Your task to perform on an android device: Open Google Maps Image 0: 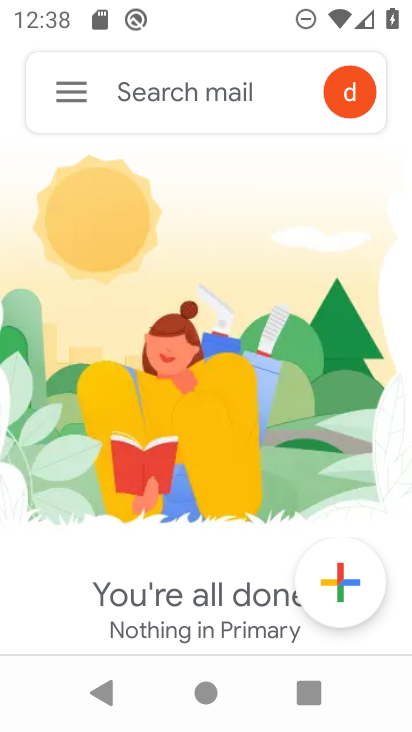
Step 0: press home button
Your task to perform on an android device: Open Google Maps Image 1: 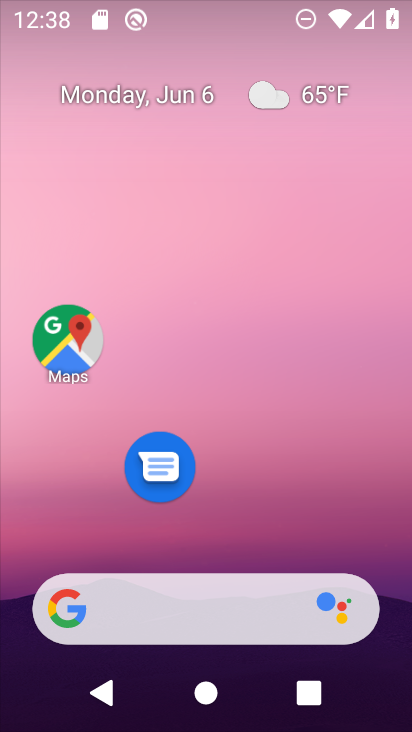
Step 1: drag from (301, 540) to (283, 199)
Your task to perform on an android device: Open Google Maps Image 2: 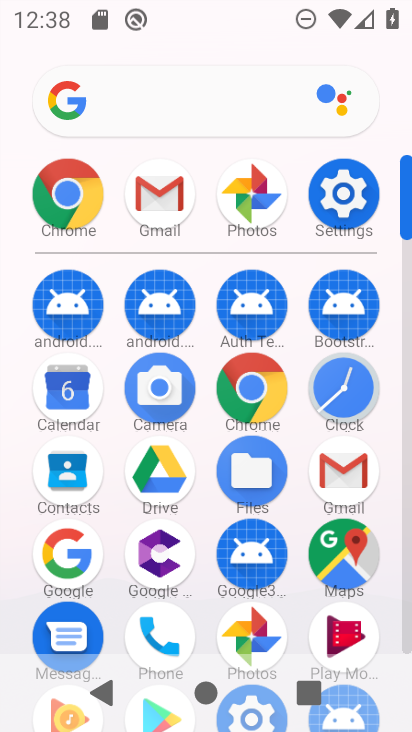
Step 2: click (67, 528)
Your task to perform on an android device: Open Google Maps Image 3: 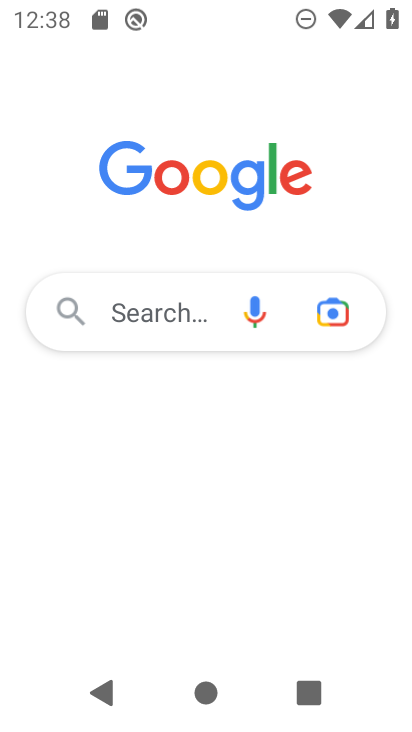
Step 3: press back button
Your task to perform on an android device: Open Google Maps Image 4: 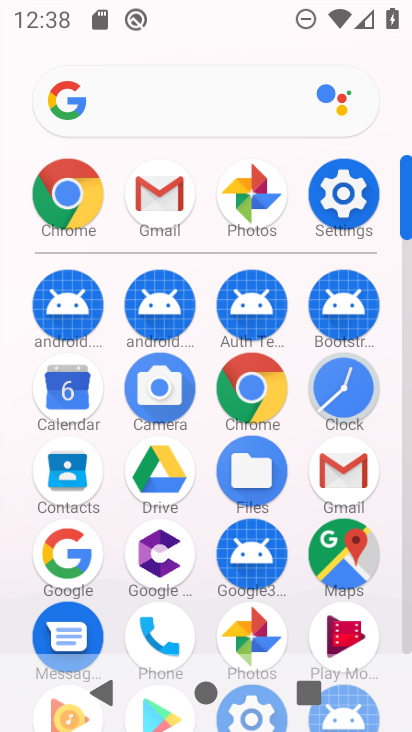
Step 4: drag from (380, 606) to (315, 214)
Your task to perform on an android device: Open Google Maps Image 5: 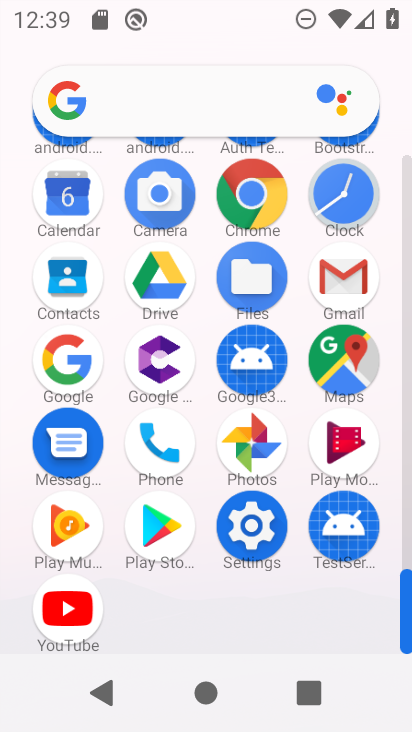
Step 5: click (349, 373)
Your task to perform on an android device: Open Google Maps Image 6: 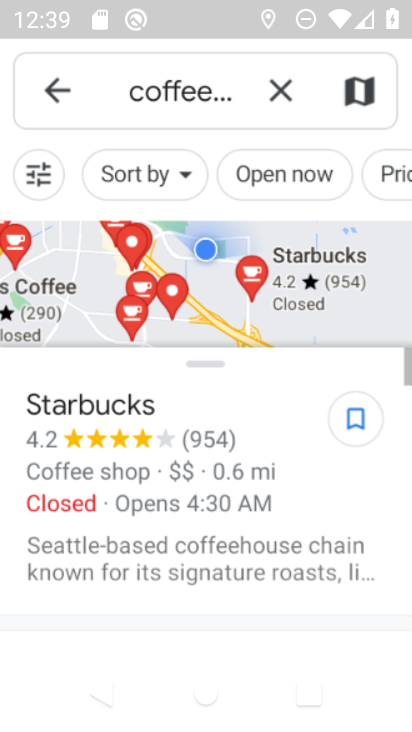
Step 6: task complete